Your task to perform on an android device: Search for sushi restaurants on Maps Image 0: 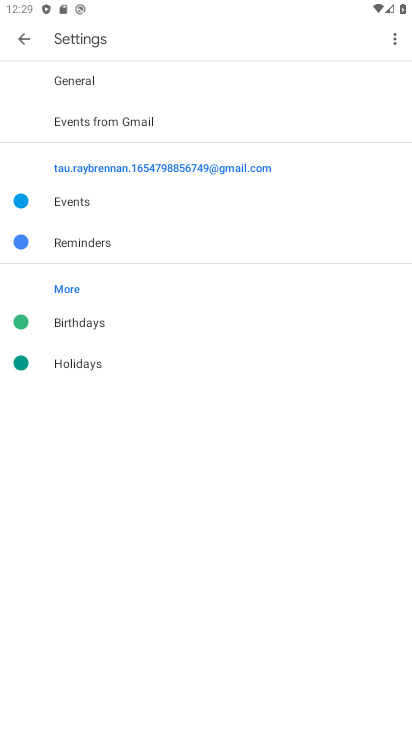
Step 0: press home button
Your task to perform on an android device: Search for sushi restaurants on Maps Image 1: 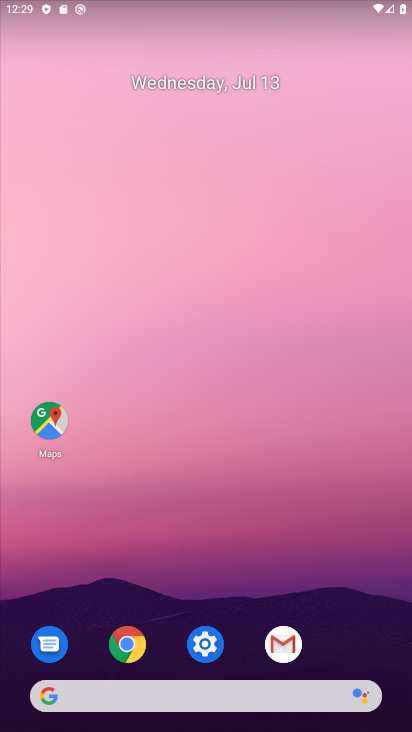
Step 1: click (54, 409)
Your task to perform on an android device: Search for sushi restaurants on Maps Image 2: 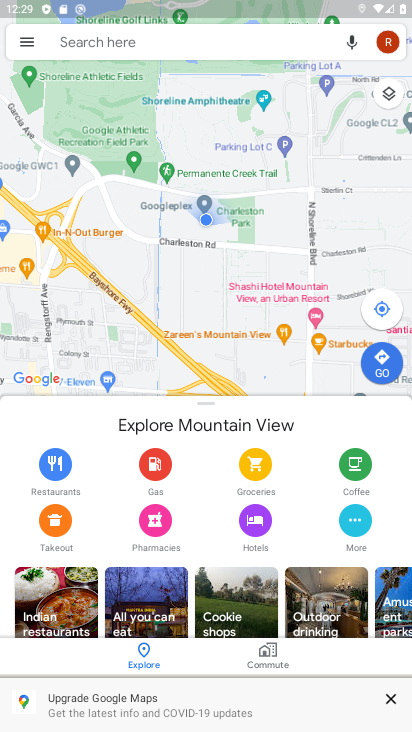
Step 2: click (95, 48)
Your task to perform on an android device: Search for sushi restaurants on Maps Image 3: 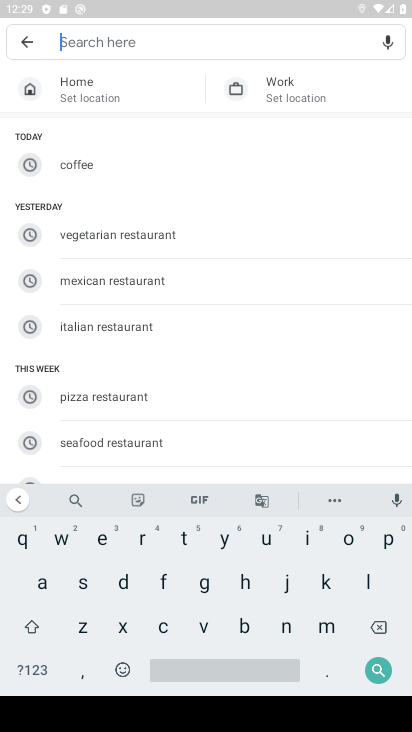
Step 3: click (83, 584)
Your task to perform on an android device: Search for sushi restaurants on Maps Image 4: 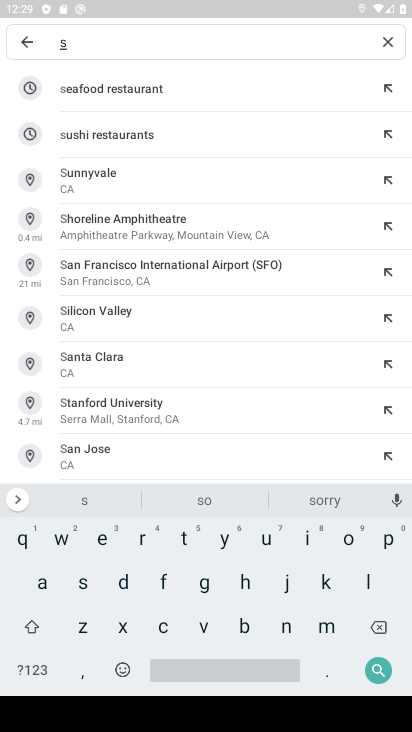
Step 4: click (262, 535)
Your task to perform on an android device: Search for sushi restaurants on Maps Image 5: 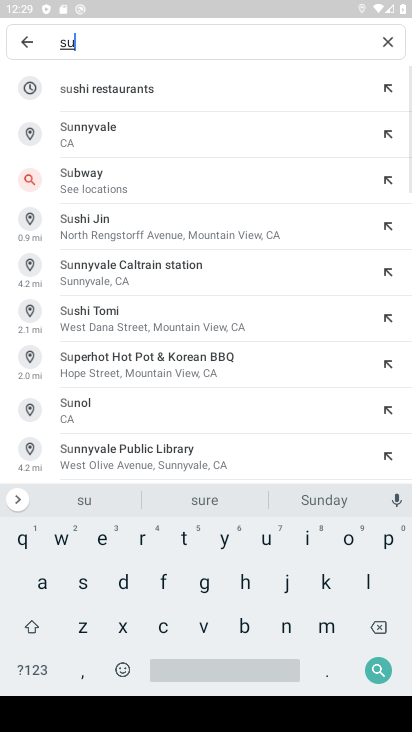
Step 5: click (88, 94)
Your task to perform on an android device: Search for sushi restaurants on Maps Image 6: 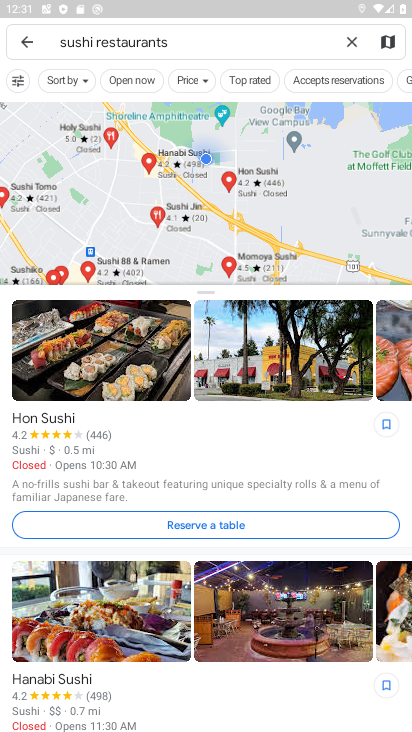
Step 6: task complete